Your task to perform on an android device: change the clock style Image 0: 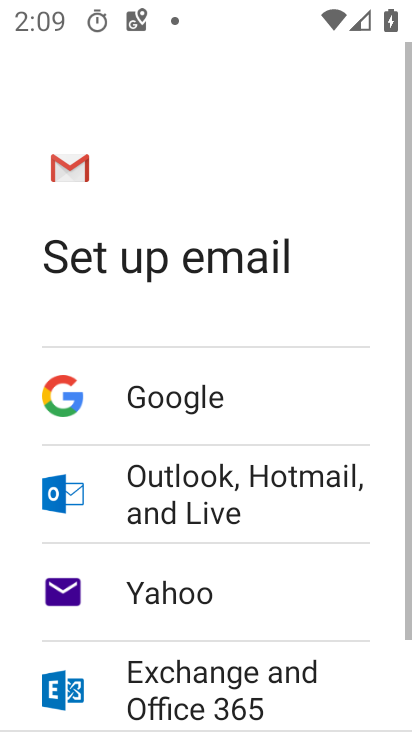
Step 0: press home button
Your task to perform on an android device: change the clock style Image 1: 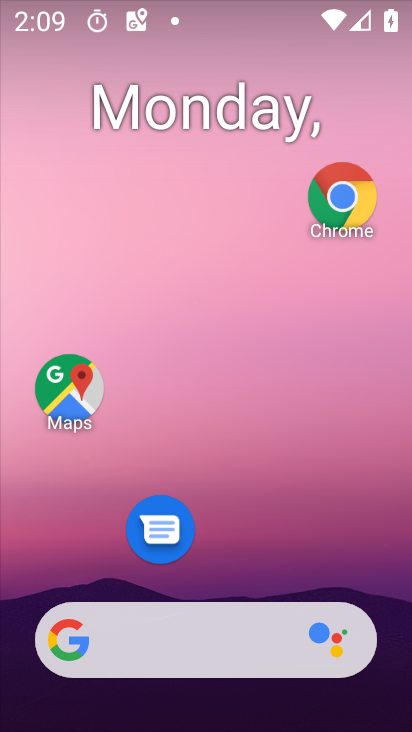
Step 1: drag from (241, 605) to (216, 20)
Your task to perform on an android device: change the clock style Image 2: 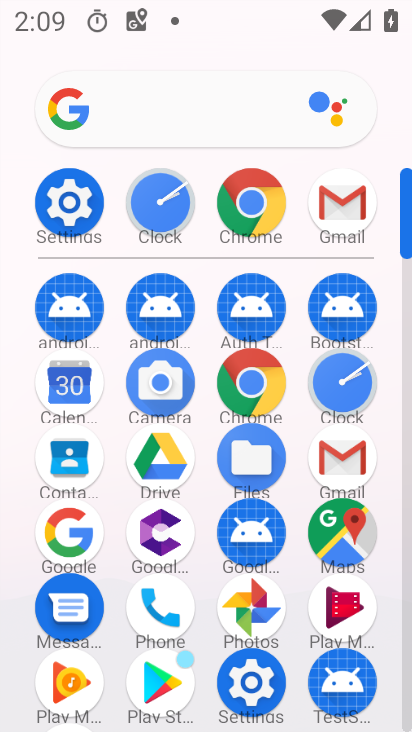
Step 2: click (346, 392)
Your task to perform on an android device: change the clock style Image 3: 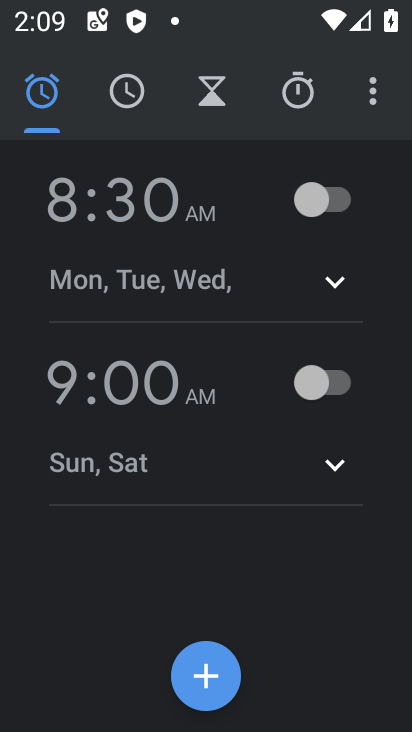
Step 3: click (367, 98)
Your task to perform on an android device: change the clock style Image 4: 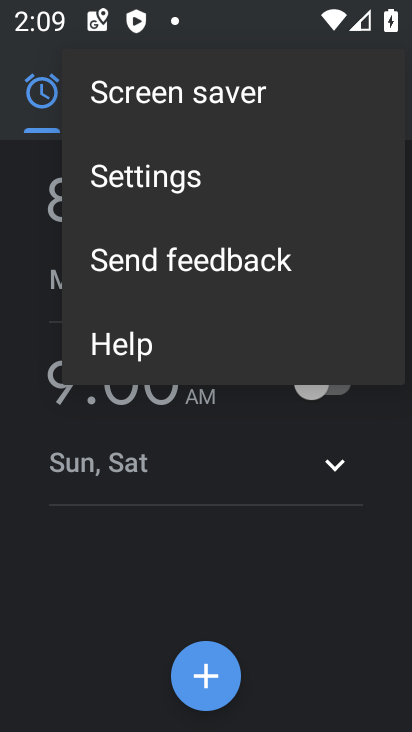
Step 4: click (205, 165)
Your task to perform on an android device: change the clock style Image 5: 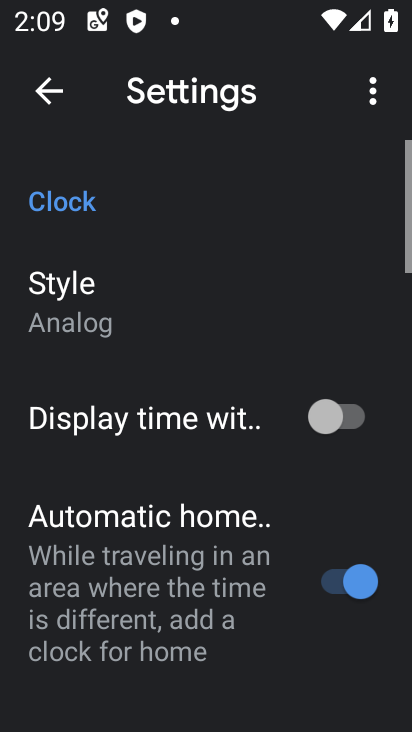
Step 5: click (90, 305)
Your task to perform on an android device: change the clock style Image 6: 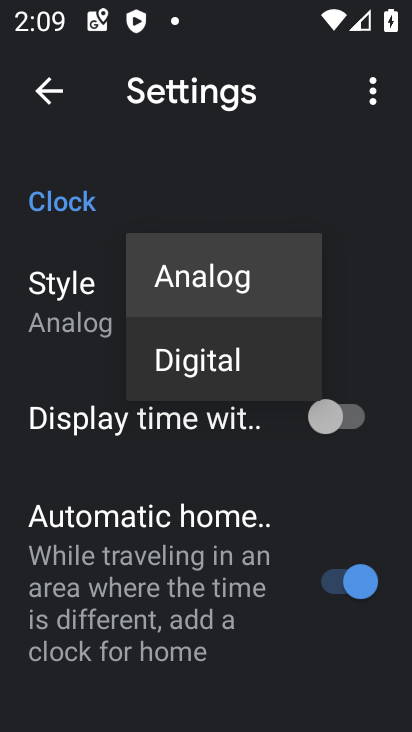
Step 6: click (197, 357)
Your task to perform on an android device: change the clock style Image 7: 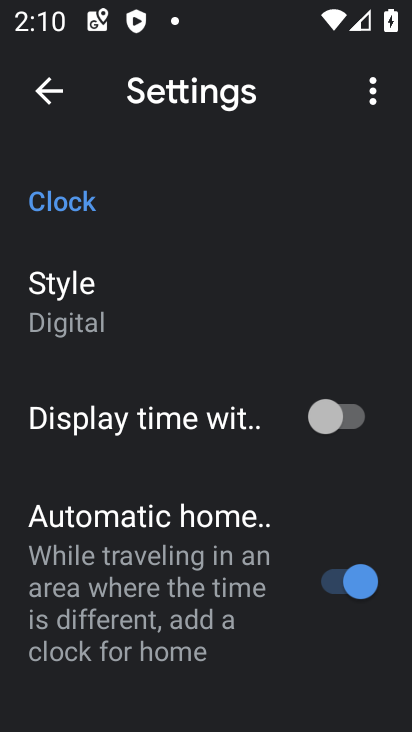
Step 7: task complete